Your task to perform on an android device: toggle show notifications on the lock screen Image 0: 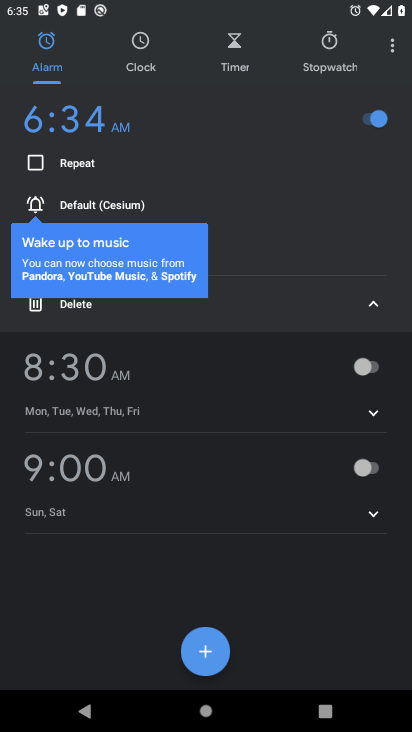
Step 0: press home button
Your task to perform on an android device: toggle show notifications on the lock screen Image 1: 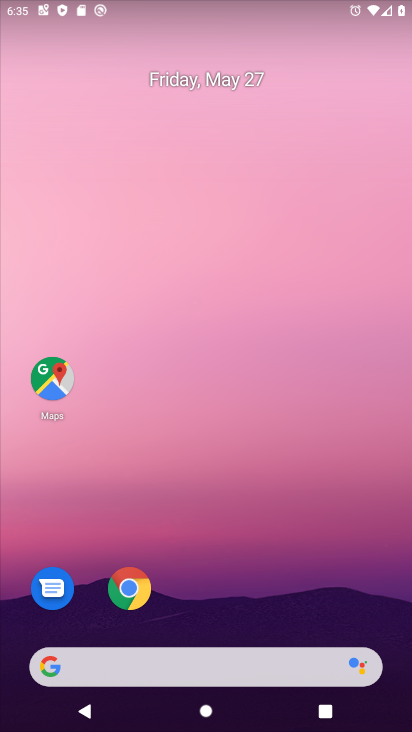
Step 1: drag from (373, 600) to (340, 0)
Your task to perform on an android device: toggle show notifications on the lock screen Image 2: 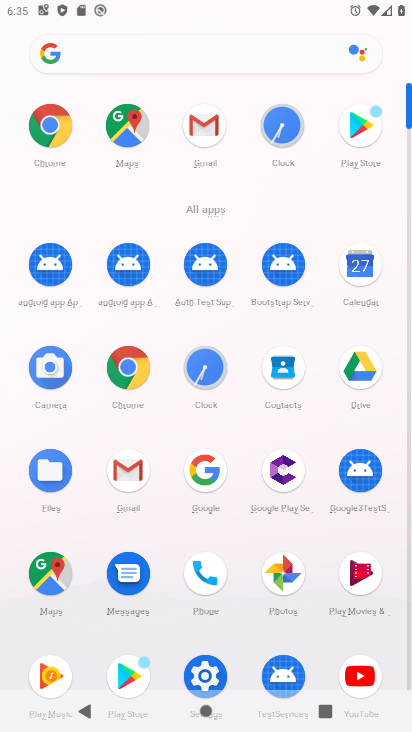
Step 2: click (218, 666)
Your task to perform on an android device: toggle show notifications on the lock screen Image 3: 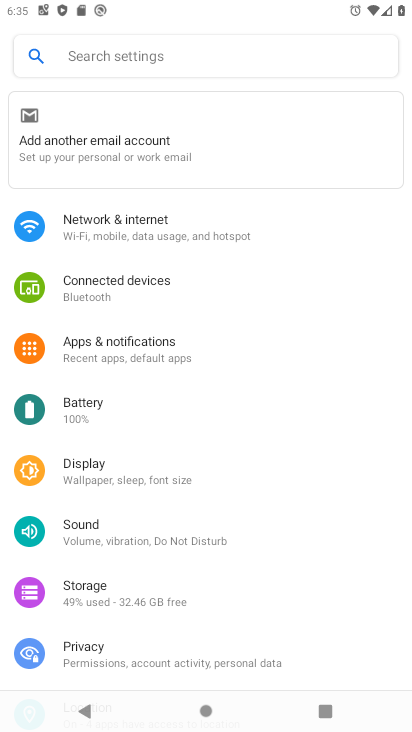
Step 3: drag from (83, 528) to (175, 232)
Your task to perform on an android device: toggle show notifications on the lock screen Image 4: 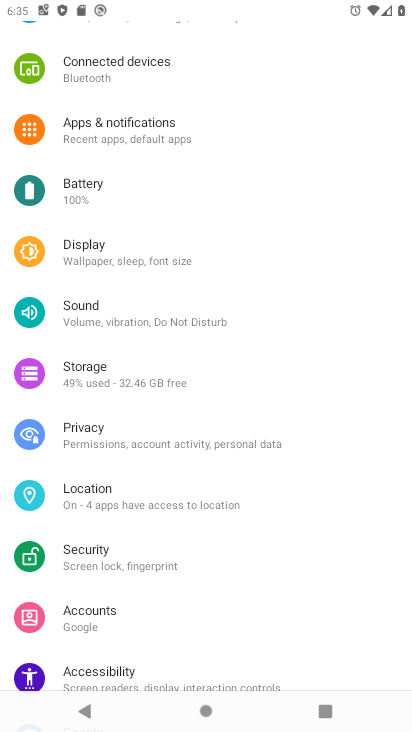
Step 4: drag from (203, 388) to (376, 117)
Your task to perform on an android device: toggle show notifications on the lock screen Image 5: 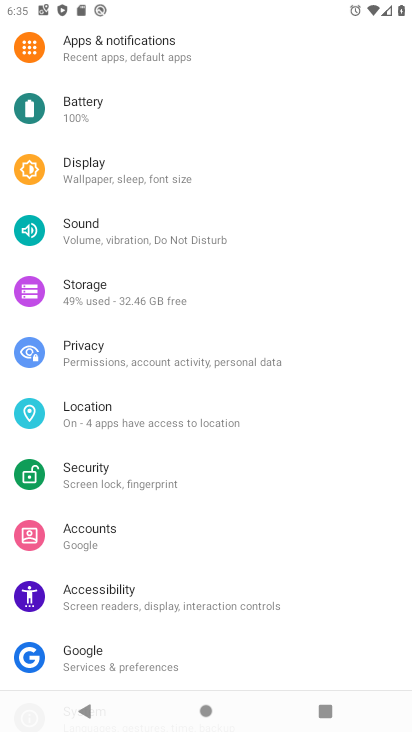
Step 5: drag from (325, 575) to (202, 16)
Your task to perform on an android device: toggle show notifications on the lock screen Image 6: 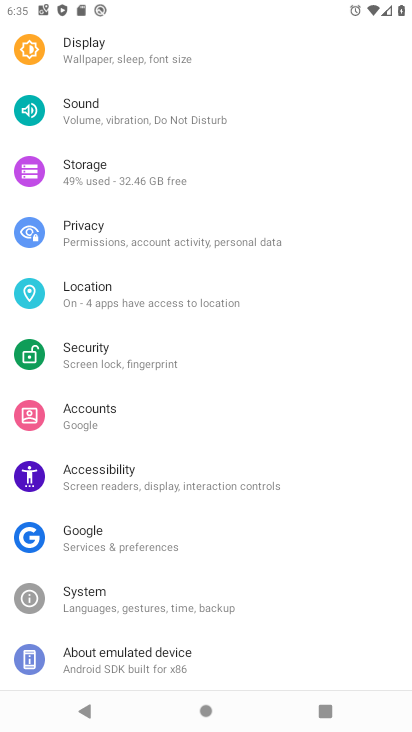
Step 6: drag from (199, 231) to (185, 718)
Your task to perform on an android device: toggle show notifications on the lock screen Image 7: 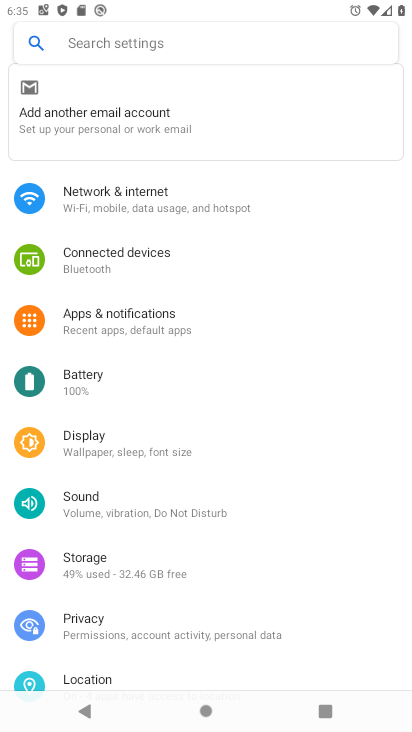
Step 7: drag from (267, 206) to (231, 730)
Your task to perform on an android device: toggle show notifications on the lock screen Image 8: 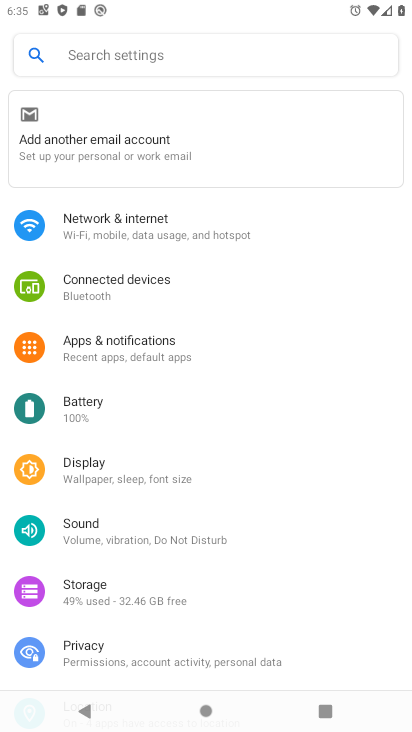
Step 8: click (182, 320)
Your task to perform on an android device: toggle show notifications on the lock screen Image 9: 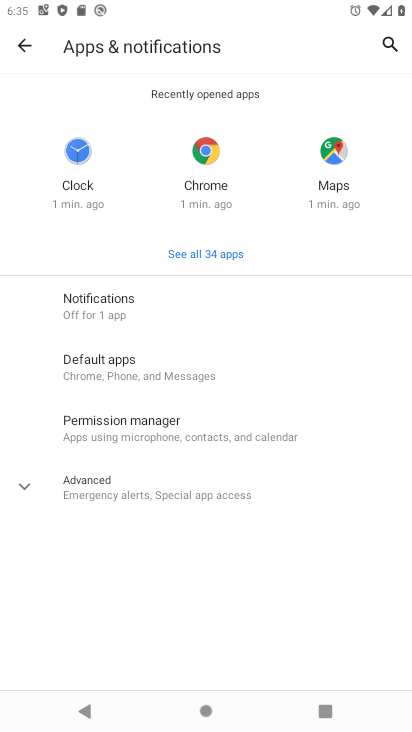
Step 9: click (56, 292)
Your task to perform on an android device: toggle show notifications on the lock screen Image 10: 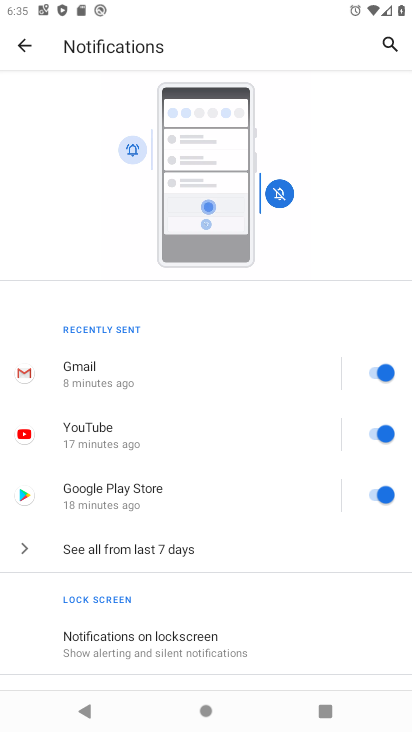
Step 10: click (109, 644)
Your task to perform on an android device: toggle show notifications on the lock screen Image 11: 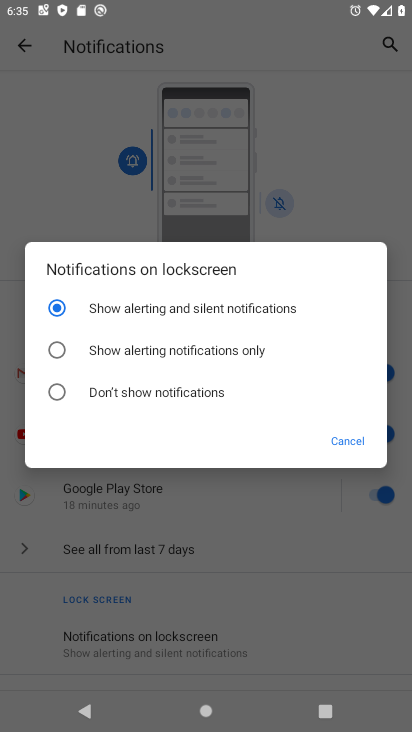
Step 11: click (132, 381)
Your task to perform on an android device: toggle show notifications on the lock screen Image 12: 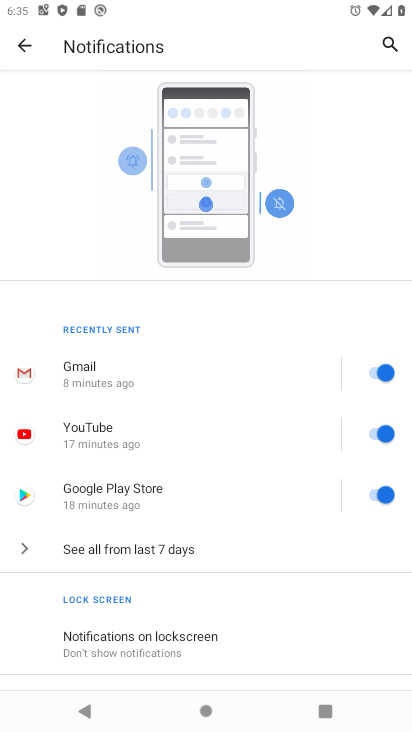
Step 12: task complete